Your task to perform on an android device: Go to Wikipedia Image 0: 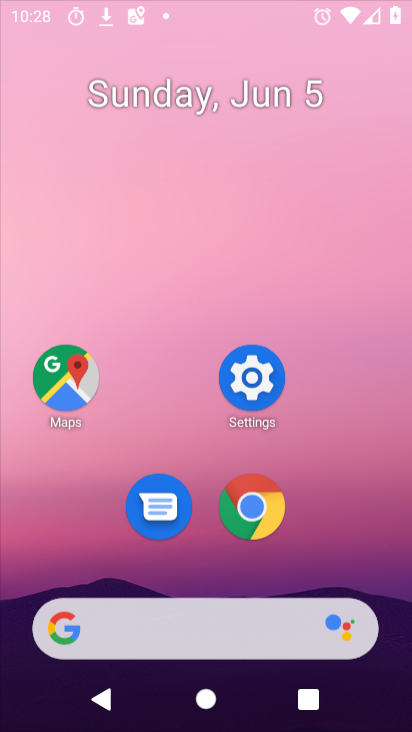
Step 0: press home button
Your task to perform on an android device: Go to Wikipedia Image 1: 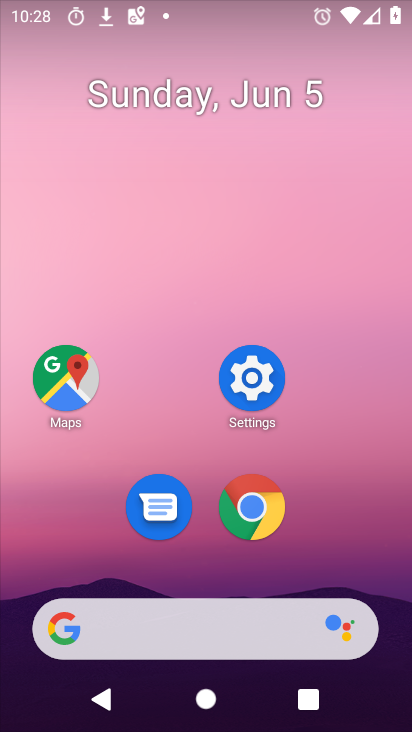
Step 1: drag from (276, 631) to (219, 139)
Your task to perform on an android device: Go to Wikipedia Image 2: 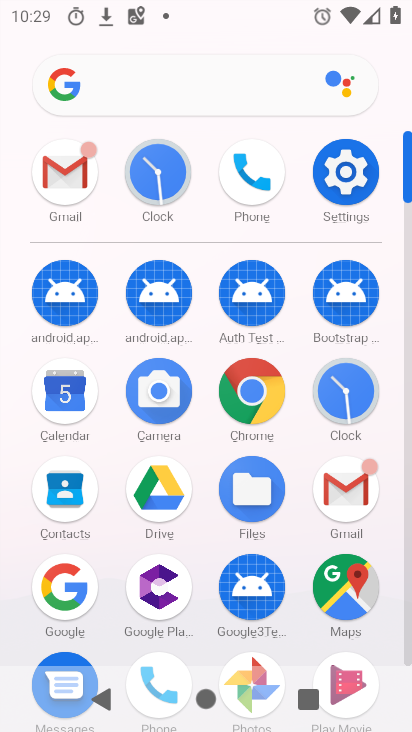
Step 2: click (243, 412)
Your task to perform on an android device: Go to Wikipedia Image 3: 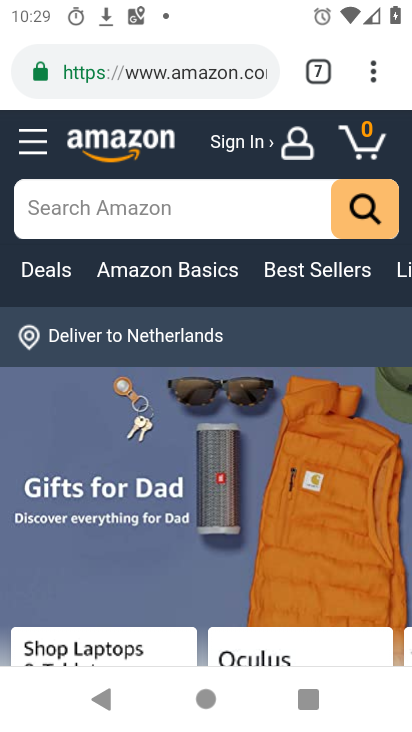
Step 3: click (353, 79)
Your task to perform on an android device: Go to Wikipedia Image 4: 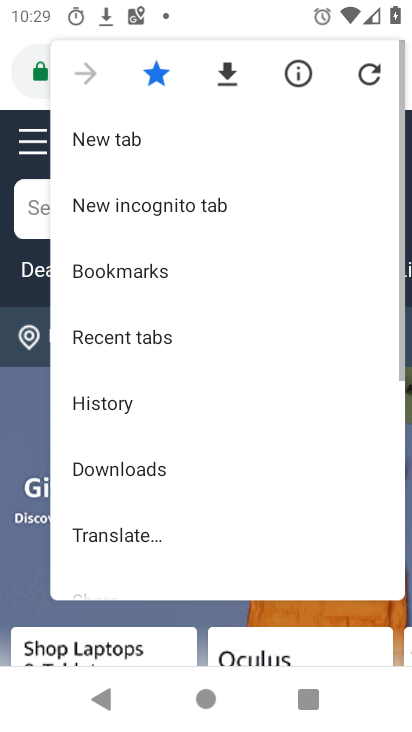
Step 4: drag from (122, 507) to (151, 314)
Your task to perform on an android device: Go to Wikipedia Image 5: 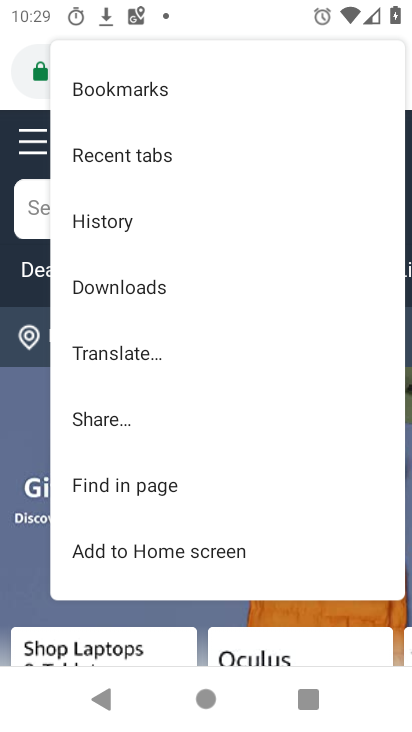
Step 5: drag from (111, 510) to (126, 378)
Your task to perform on an android device: Go to Wikipedia Image 6: 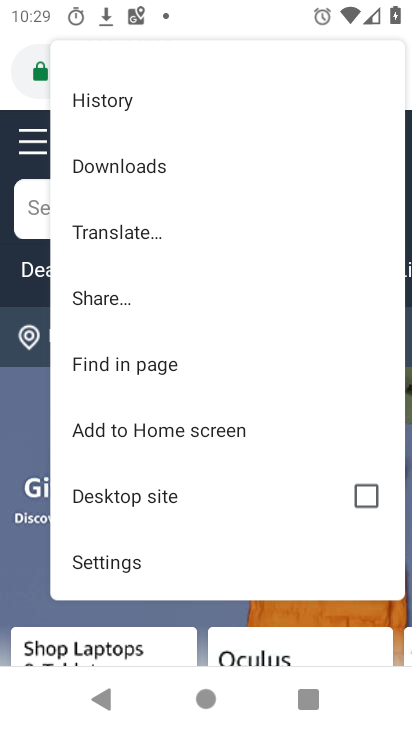
Step 6: drag from (144, 222) to (241, 566)
Your task to perform on an android device: Go to Wikipedia Image 7: 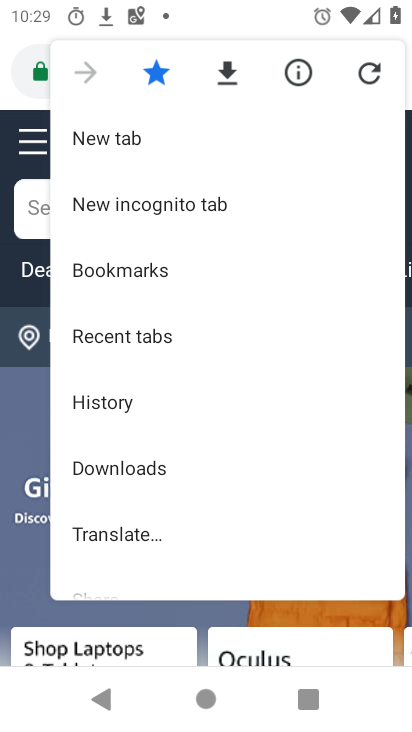
Step 7: click (162, 141)
Your task to perform on an android device: Go to Wikipedia Image 8: 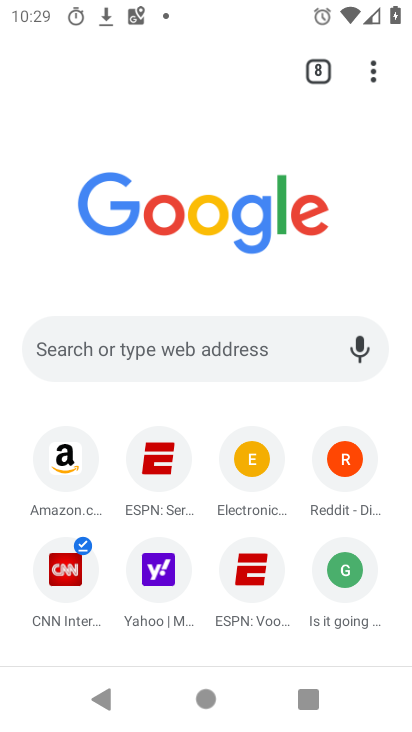
Step 8: click (151, 316)
Your task to perform on an android device: Go to Wikipedia Image 9: 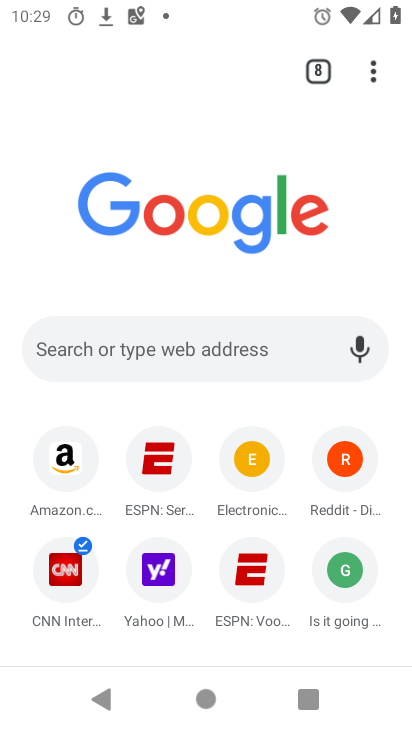
Step 9: click (144, 334)
Your task to perform on an android device: Go to Wikipedia Image 10: 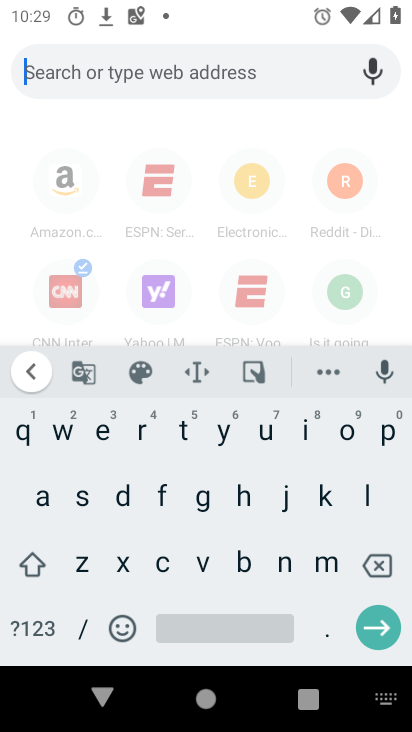
Step 10: click (63, 429)
Your task to perform on an android device: Go to Wikipedia Image 11: 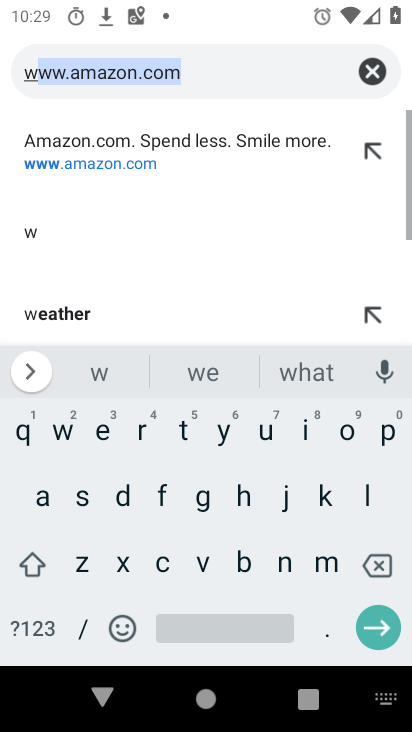
Step 11: click (303, 430)
Your task to perform on an android device: Go to Wikipedia Image 12: 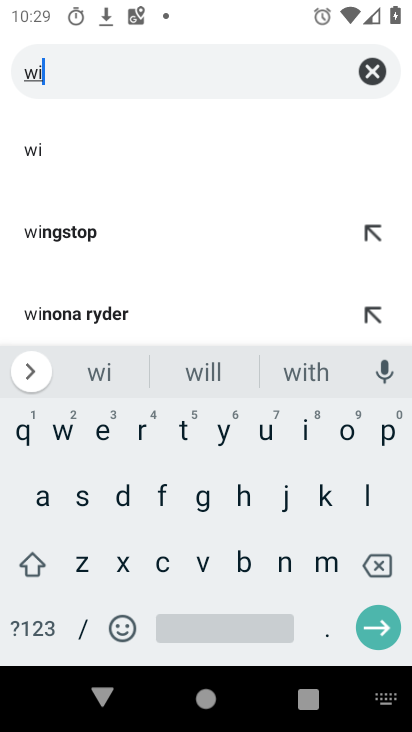
Step 12: click (317, 501)
Your task to perform on an android device: Go to Wikipedia Image 13: 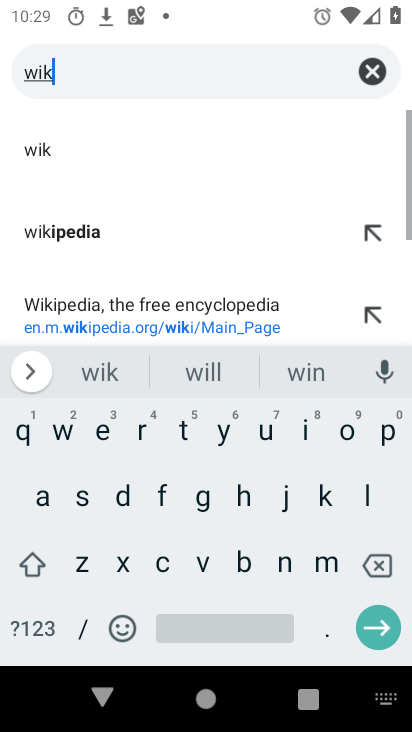
Step 13: click (108, 220)
Your task to perform on an android device: Go to Wikipedia Image 14: 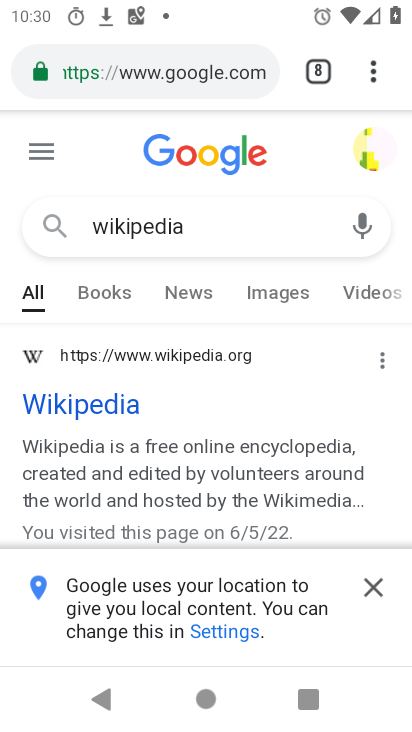
Step 14: task complete